Your task to perform on an android device: create a new album in the google photos Image 0: 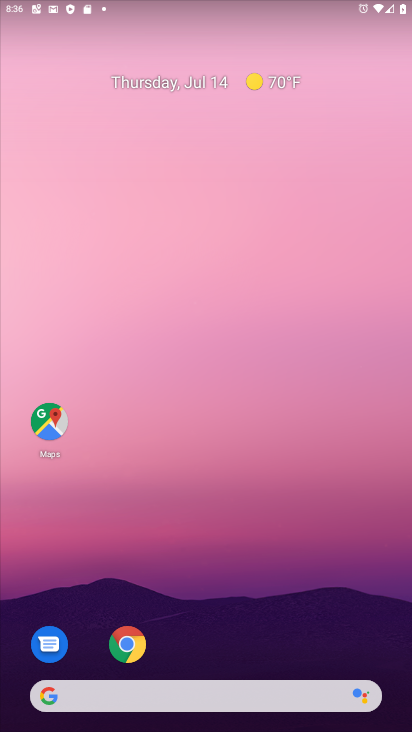
Step 0: drag from (256, 625) to (271, 174)
Your task to perform on an android device: create a new album in the google photos Image 1: 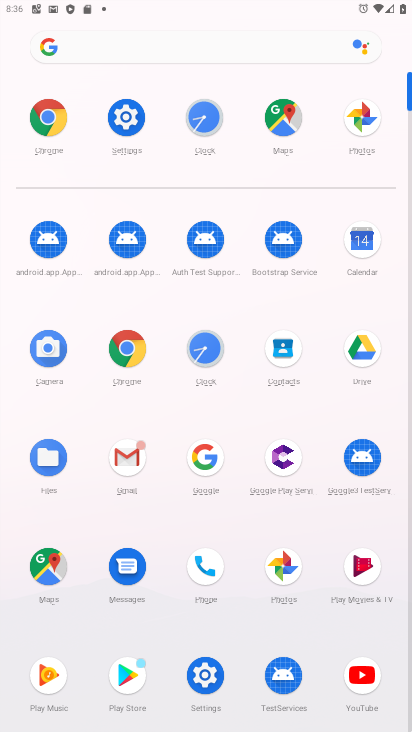
Step 1: click (280, 561)
Your task to perform on an android device: create a new album in the google photos Image 2: 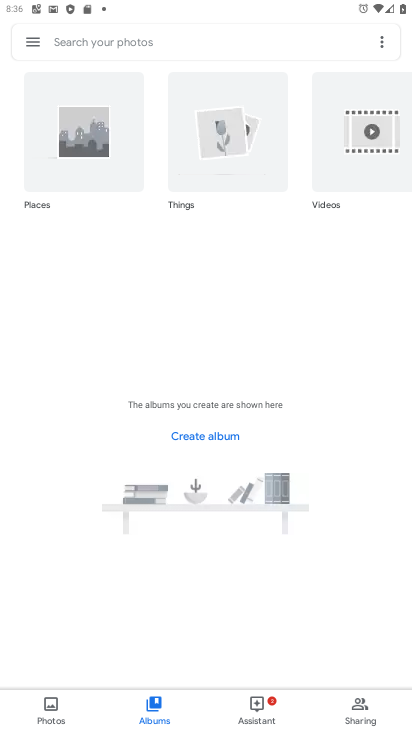
Step 2: click (52, 711)
Your task to perform on an android device: create a new album in the google photos Image 3: 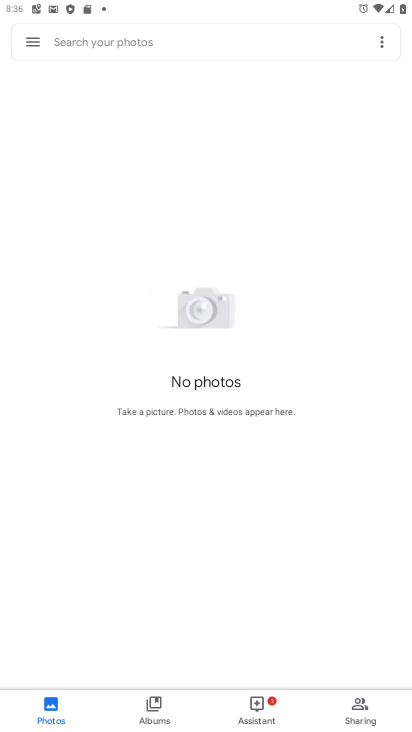
Step 3: task complete